Your task to perform on an android device: open app "WhatsApp Messenger" (install if not already installed), go to login, and select forgot password Image 0: 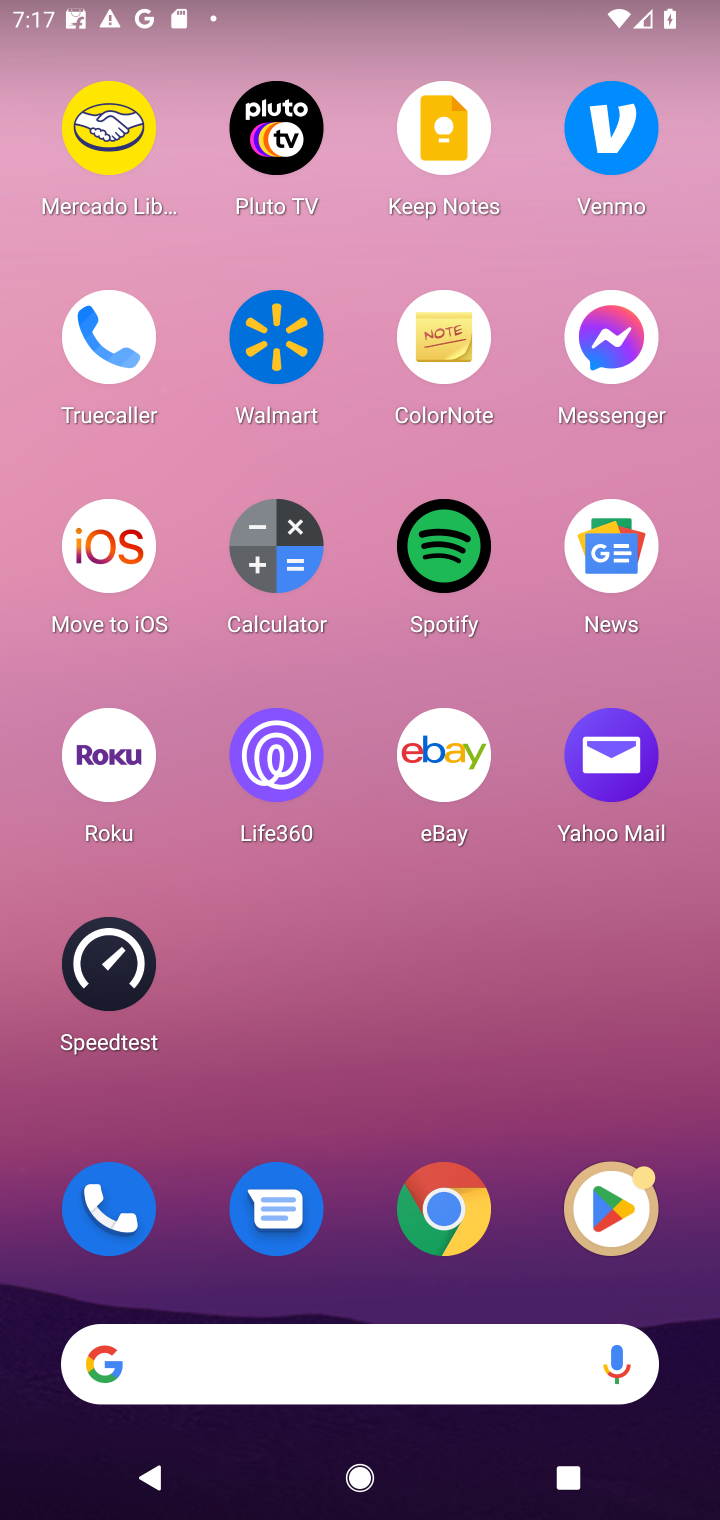
Step 0: click (603, 1199)
Your task to perform on an android device: open app "WhatsApp Messenger" (install if not already installed), go to login, and select forgot password Image 1: 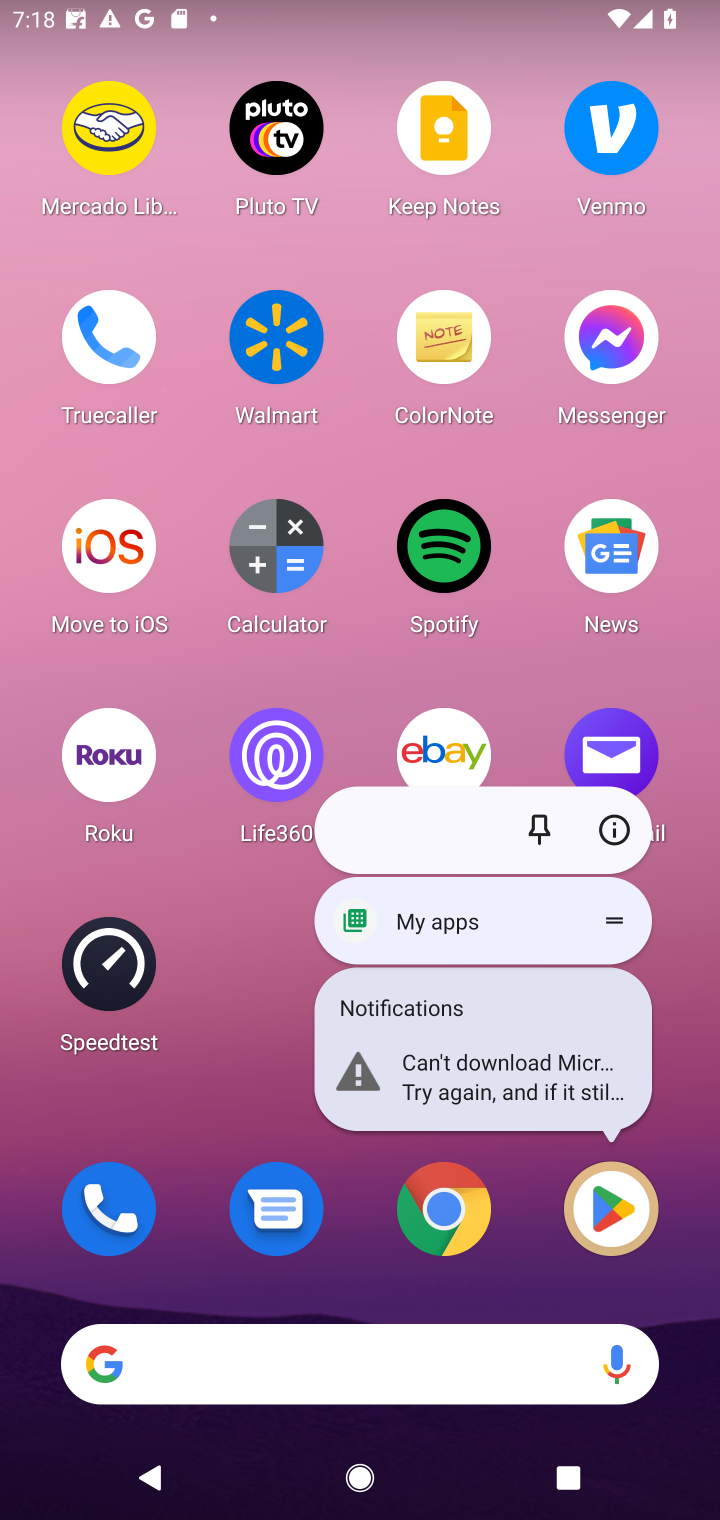
Step 1: click (632, 1228)
Your task to perform on an android device: open app "WhatsApp Messenger" (install if not already installed), go to login, and select forgot password Image 2: 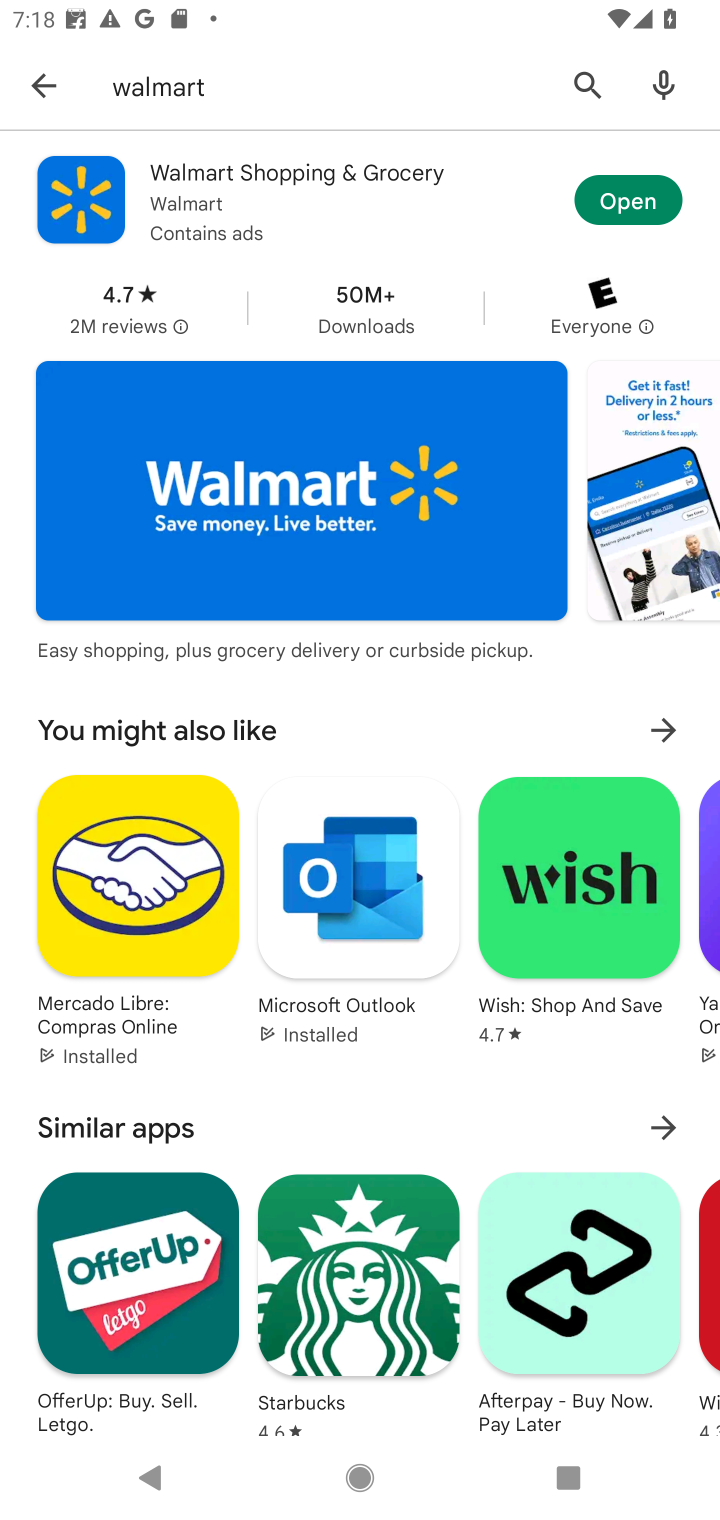
Step 2: click (568, 96)
Your task to perform on an android device: open app "WhatsApp Messenger" (install if not already installed), go to login, and select forgot password Image 3: 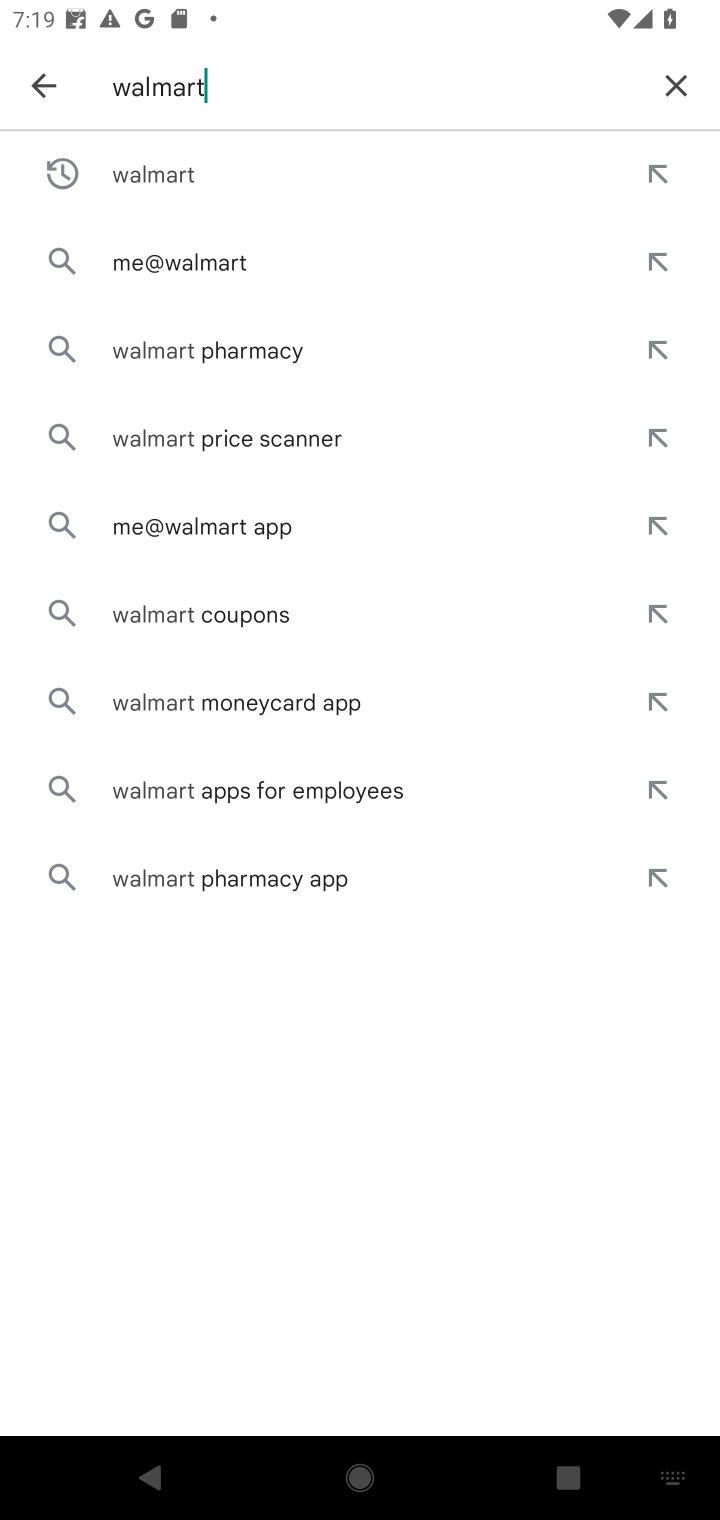
Step 3: click (671, 73)
Your task to perform on an android device: open app "WhatsApp Messenger" (install if not already installed), go to login, and select forgot password Image 4: 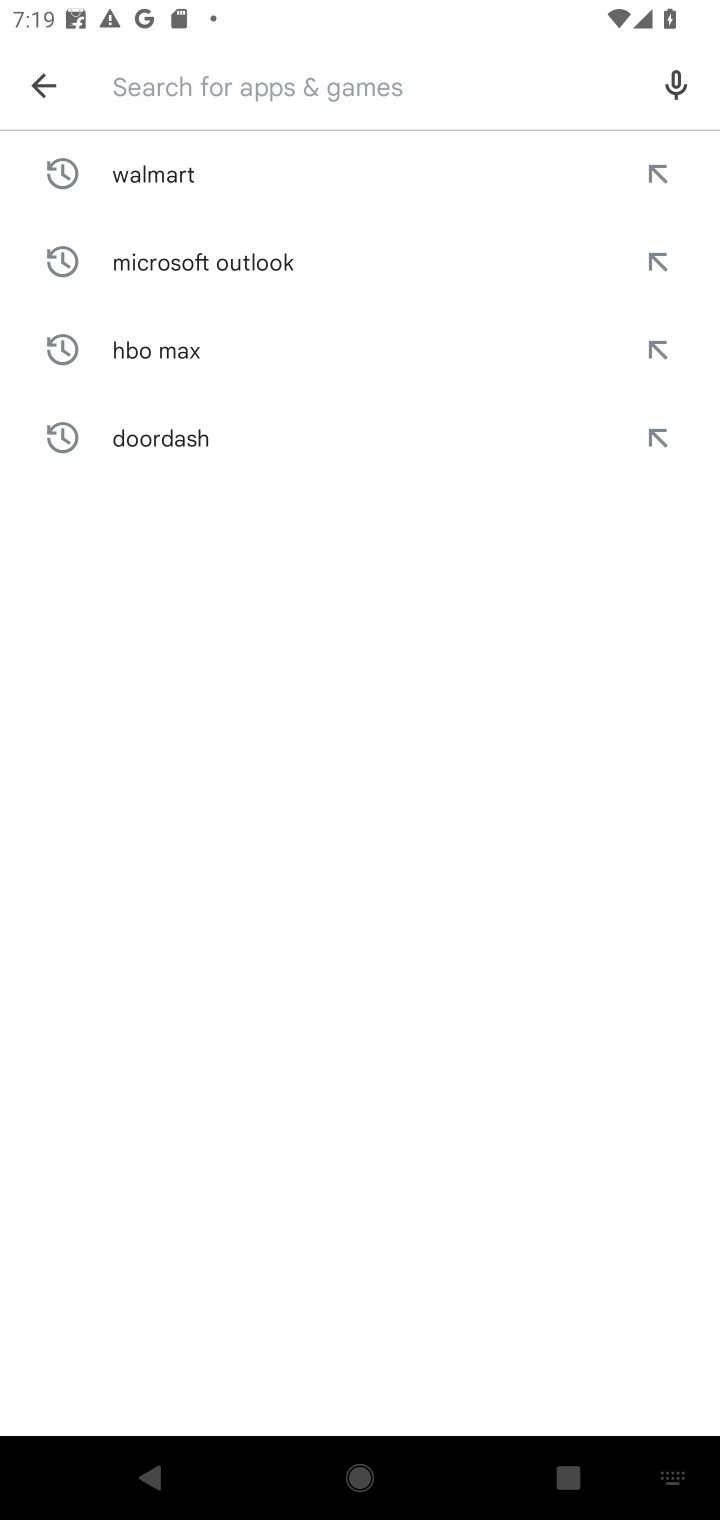
Step 4: type "whatsaap"
Your task to perform on an android device: open app "WhatsApp Messenger" (install if not already installed), go to login, and select forgot password Image 5: 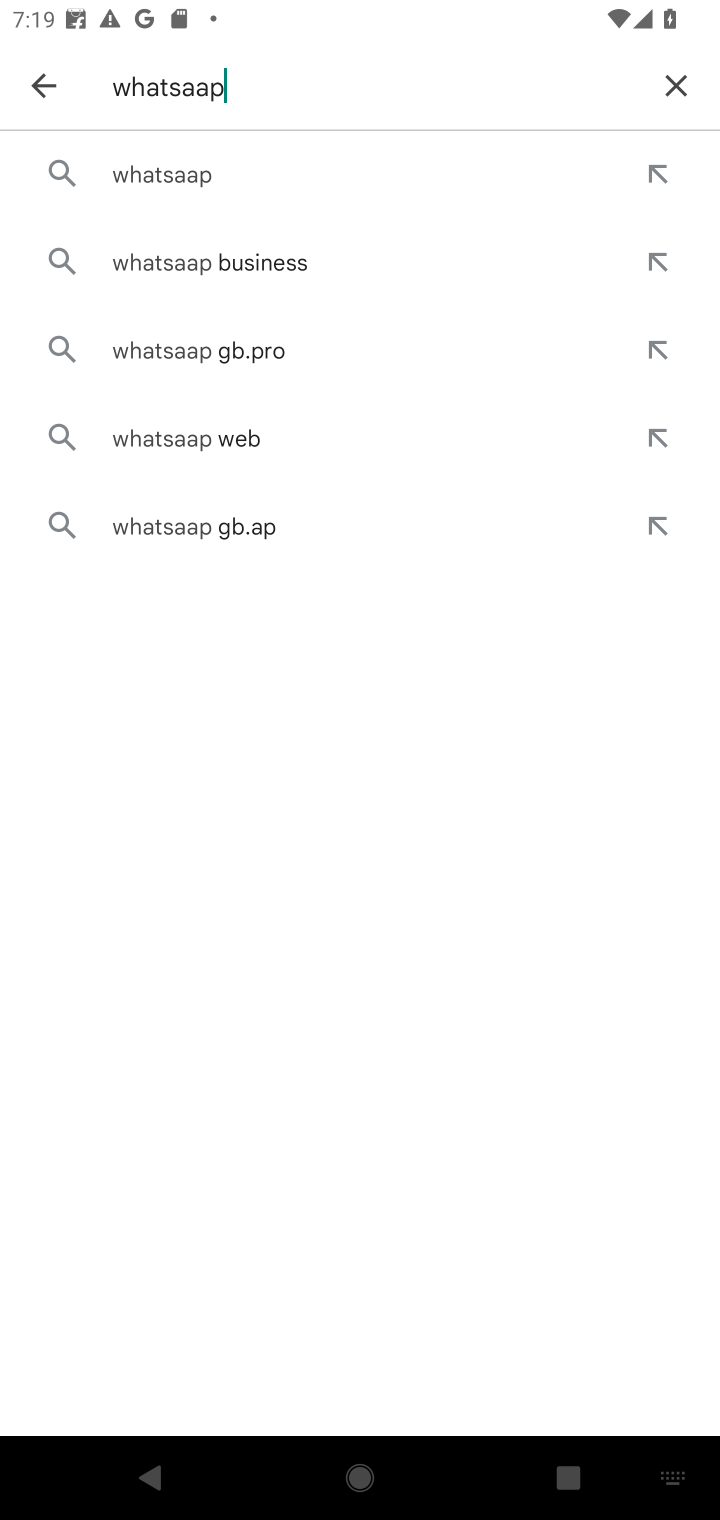
Step 5: click (246, 154)
Your task to perform on an android device: open app "WhatsApp Messenger" (install if not already installed), go to login, and select forgot password Image 6: 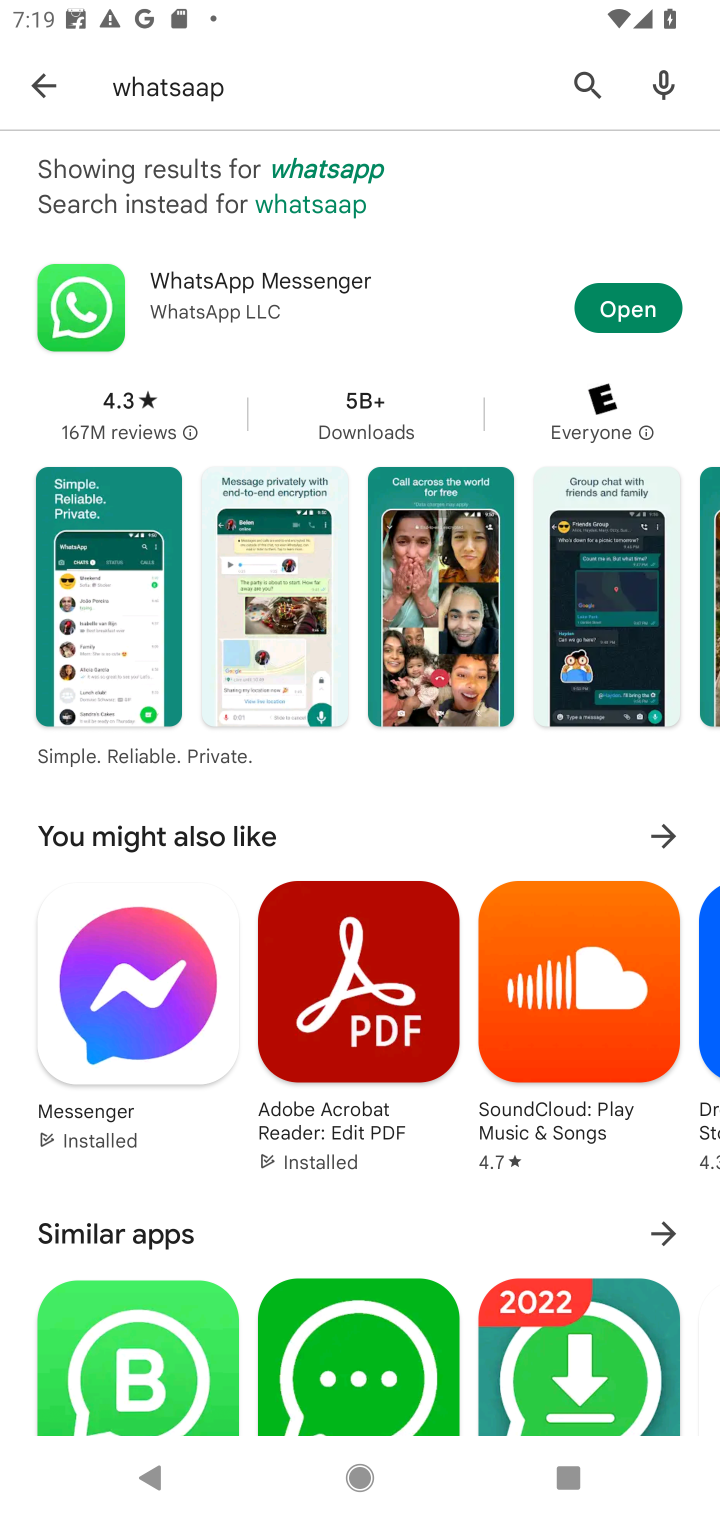
Step 6: click (613, 299)
Your task to perform on an android device: open app "WhatsApp Messenger" (install if not already installed), go to login, and select forgot password Image 7: 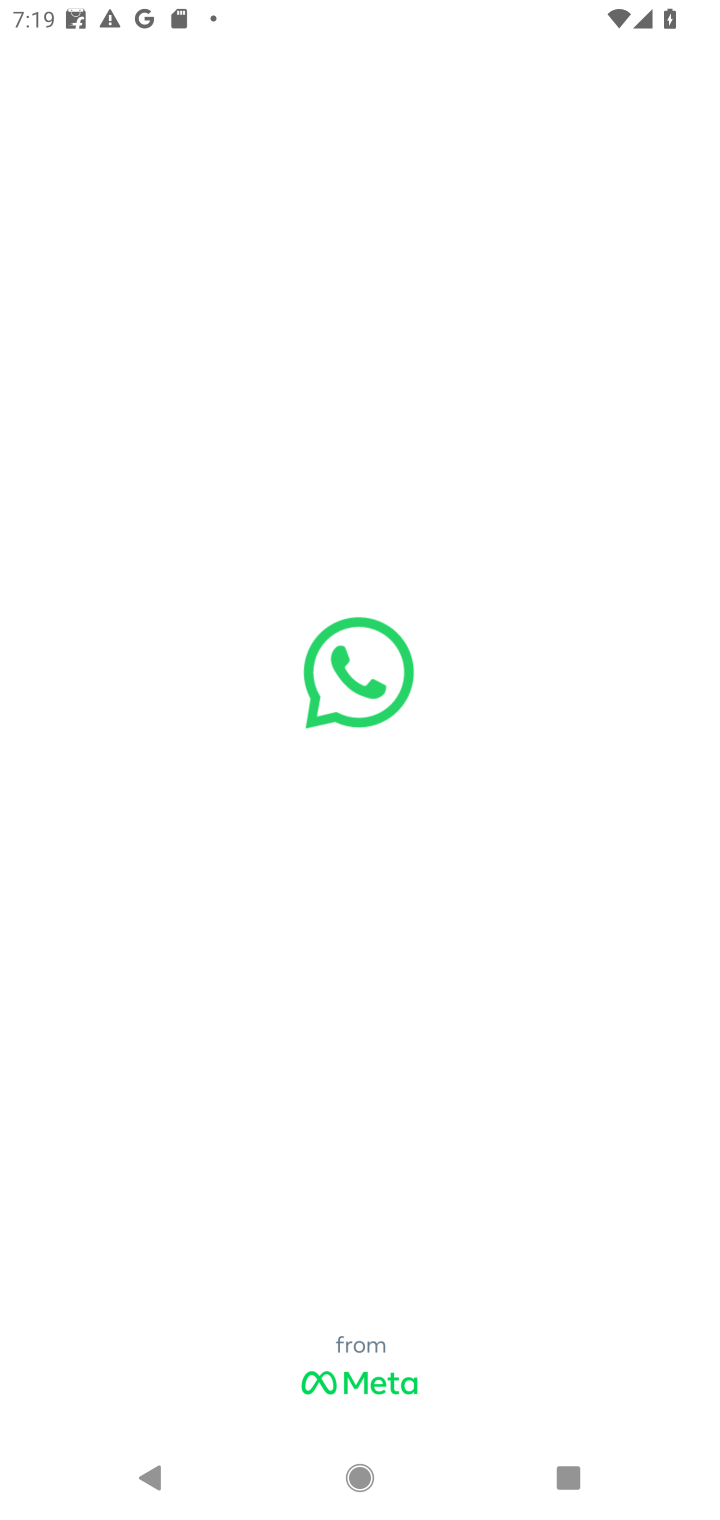
Step 7: task complete